Your task to perform on an android device: Open calendar and show me the first week of next month Image 0: 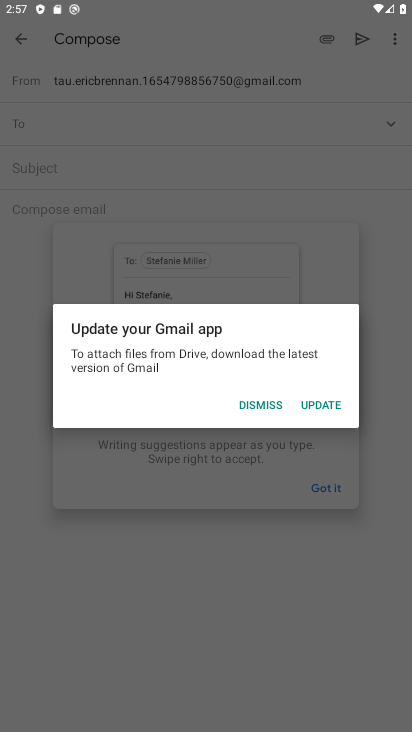
Step 0: press home button
Your task to perform on an android device: Open calendar and show me the first week of next month Image 1: 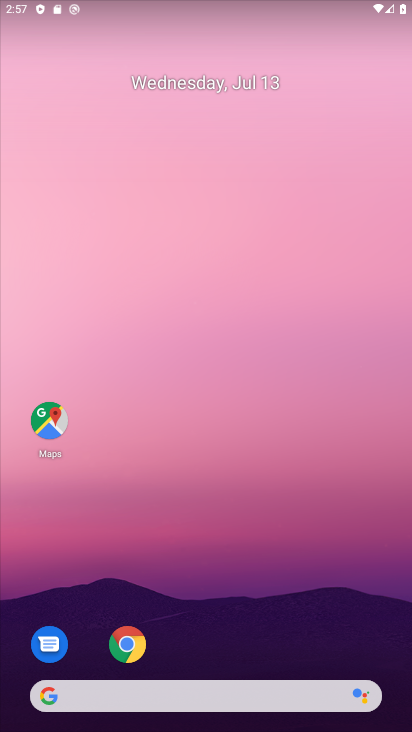
Step 1: drag from (220, 695) to (302, 213)
Your task to perform on an android device: Open calendar and show me the first week of next month Image 2: 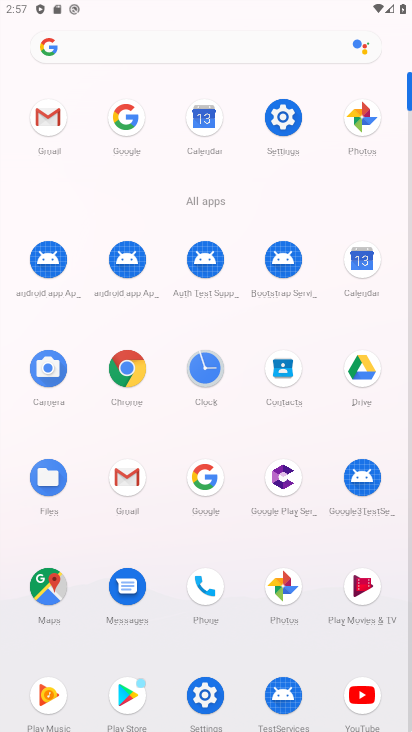
Step 2: click (203, 116)
Your task to perform on an android device: Open calendar and show me the first week of next month Image 3: 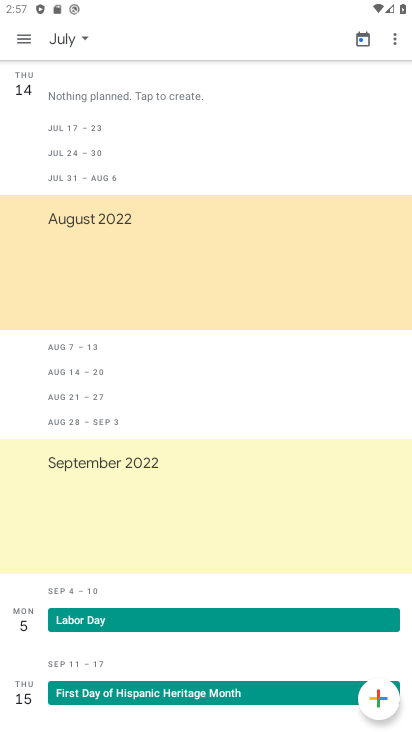
Step 3: click (366, 42)
Your task to perform on an android device: Open calendar and show me the first week of next month Image 4: 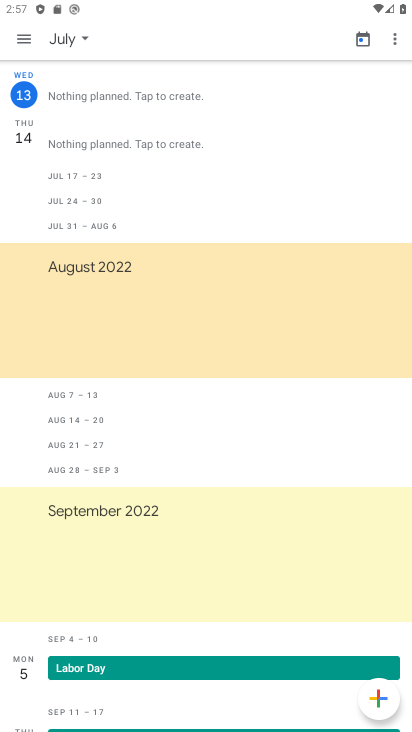
Step 4: click (87, 33)
Your task to perform on an android device: Open calendar and show me the first week of next month Image 5: 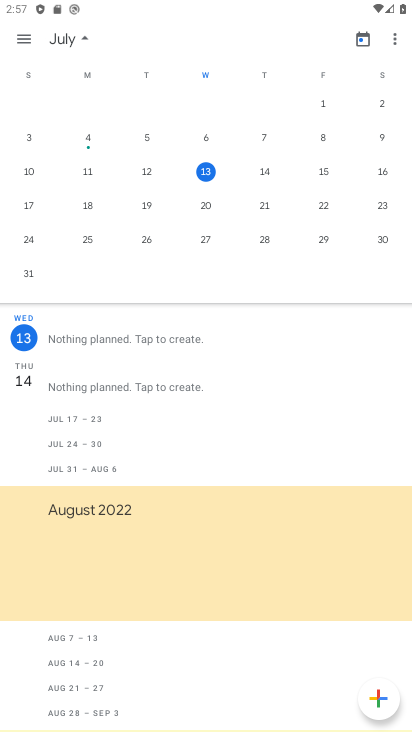
Step 5: drag from (346, 214) to (0, 193)
Your task to perform on an android device: Open calendar and show me the first week of next month Image 6: 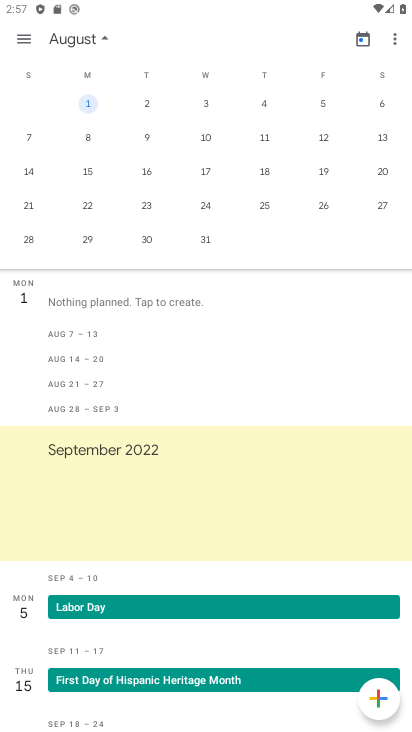
Step 6: click (83, 97)
Your task to perform on an android device: Open calendar and show me the first week of next month Image 7: 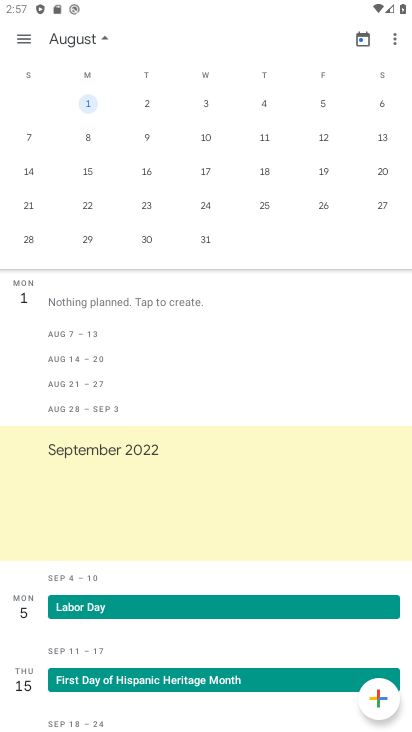
Step 7: click (23, 33)
Your task to perform on an android device: Open calendar and show me the first week of next month Image 8: 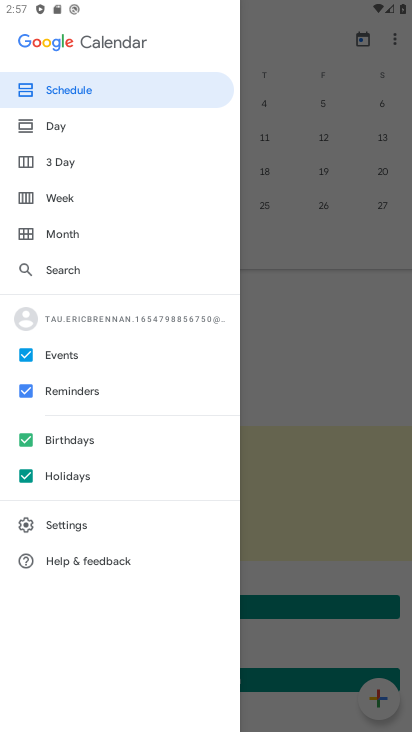
Step 8: click (50, 197)
Your task to perform on an android device: Open calendar and show me the first week of next month Image 9: 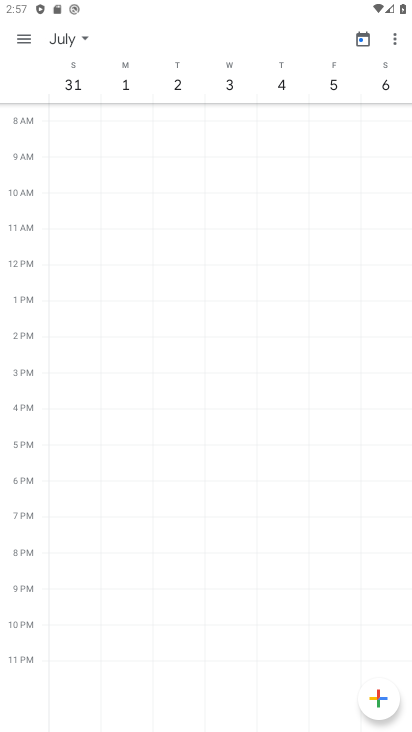
Step 9: task complete